Your task to perform on an android device: clear all cookies in the chrome app Image 0: 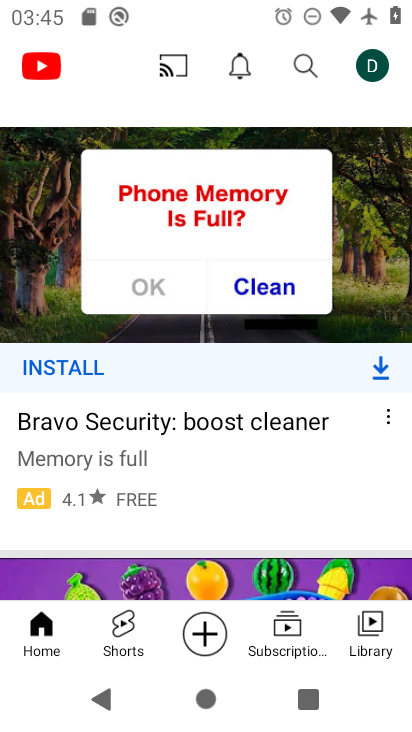
Step 0: press home button
Your task to perform on an android device: clear all cookies in the chrome app Image 1: 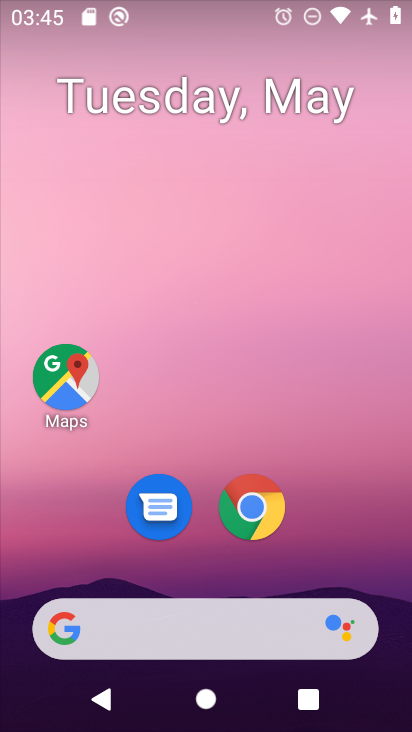
Step 1: click (247, 523)
Your task to perform on an android device: clear all cookies in the chrome app Image 2: 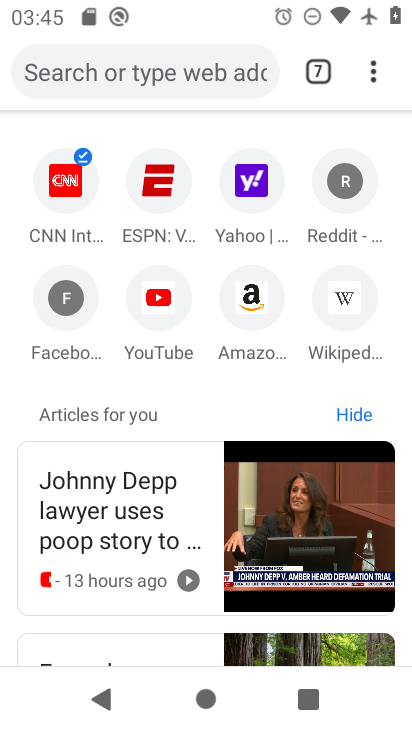
Step 2: click (376, 66)
Your task to perform on an android device: clear all cookies in the chrome app Image 3: 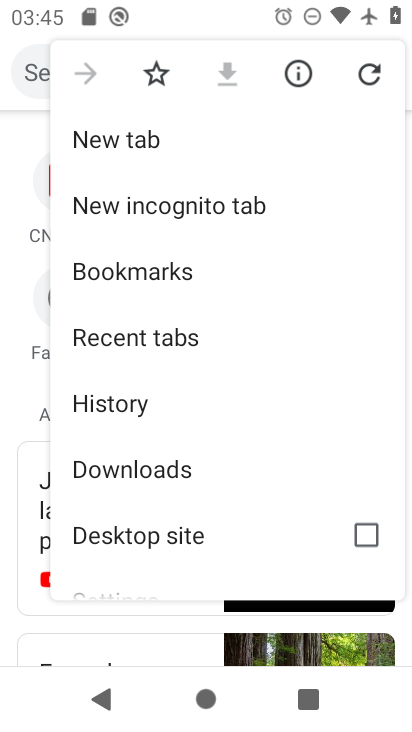
Step 3: drag from (218, 508) to (238, 301)
Your task to perform on an android device: clear all cookies in the chrome app Image 4: 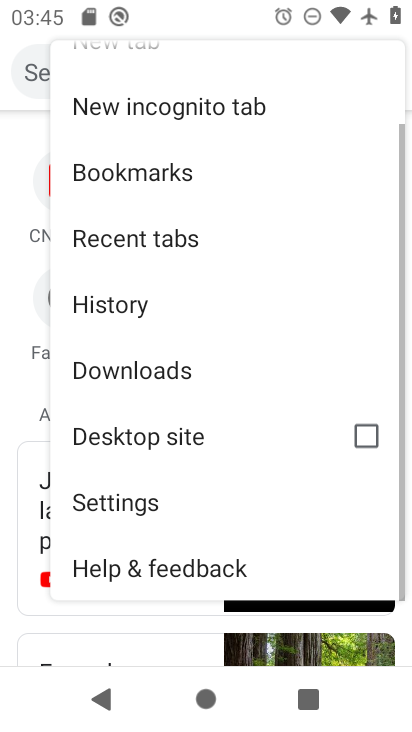
Step 4: drag from (185, 507) to (212, 253)
Your task to perform on an android device: clear all cookies in the chrome app Image 5: 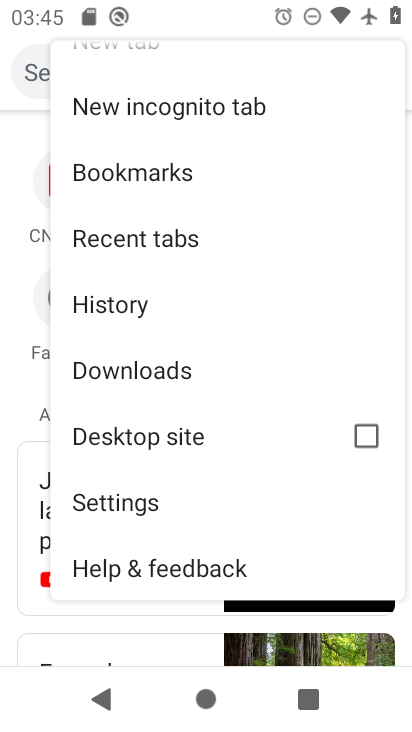
Step 5: click (161, 492)
Your task to perform on an android device: clear all cookies in the chrome app Image 6: 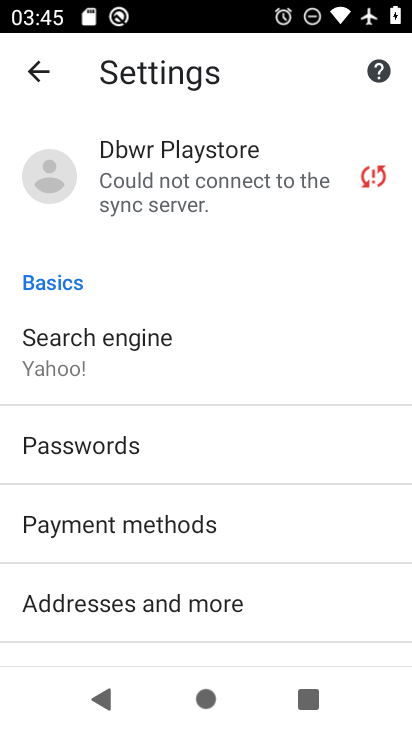
Step 6: click (34, 84)
Your task to perform on an android device: clear all cookies in the chrome app Image 7: 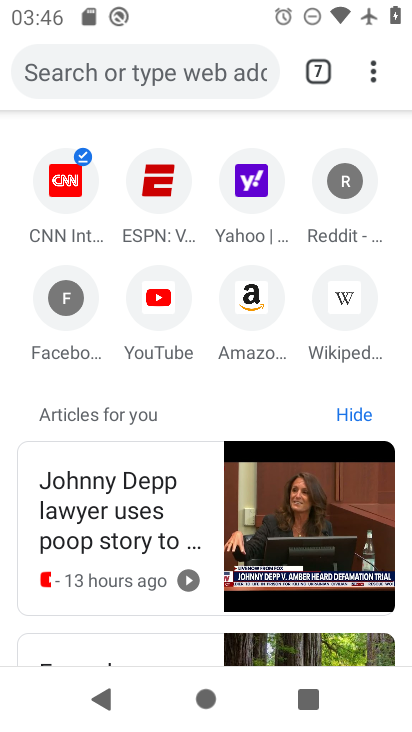
Step 7: drag from (370, 64) to (138, 385)
Your task to perform on an android device: clear all cookies in the chrome app Image 8: 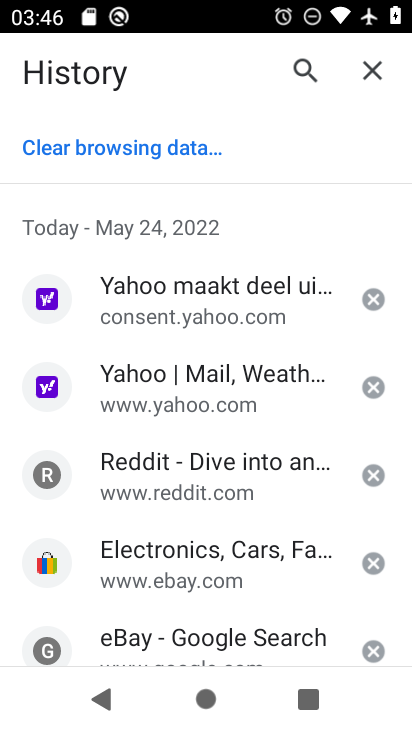
Step 8: click (139, 155)
Your task to perform on an android device: clear all cookies in the chrome app Image 9: 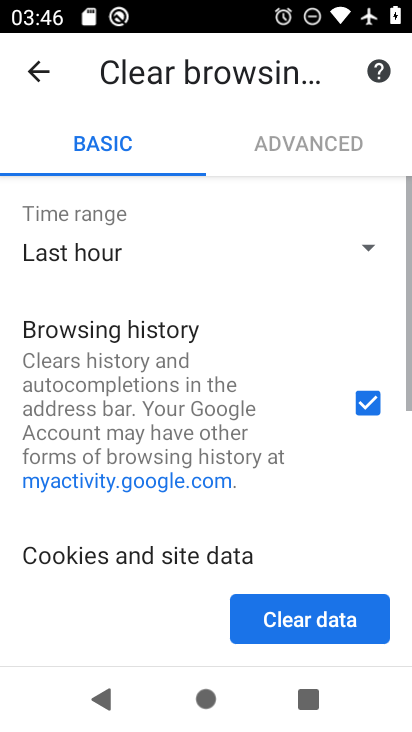
Step 9: drag from (317, 491) to (298, 226)
Your task to perform on an android device: clear all cookies in the chrome app Image 10: 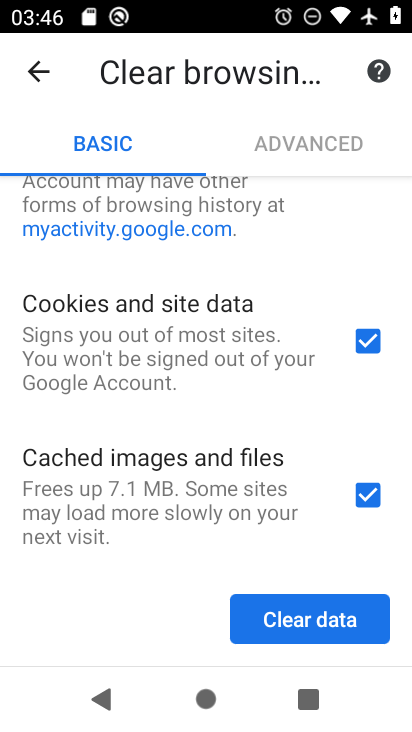
Step 10: click (351, 621)
Your task to perform on an android device: clear all cookies in the chrome app Image 11: 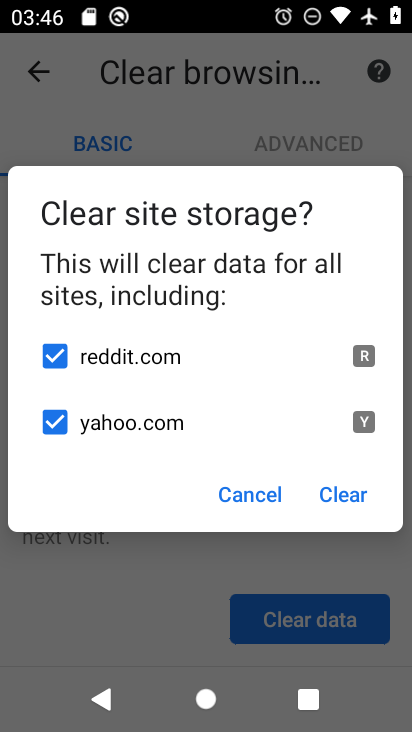
Step 11: click (344, 488)
Your task to perform on an android device: clear all cookies in the chrome app Image 12: 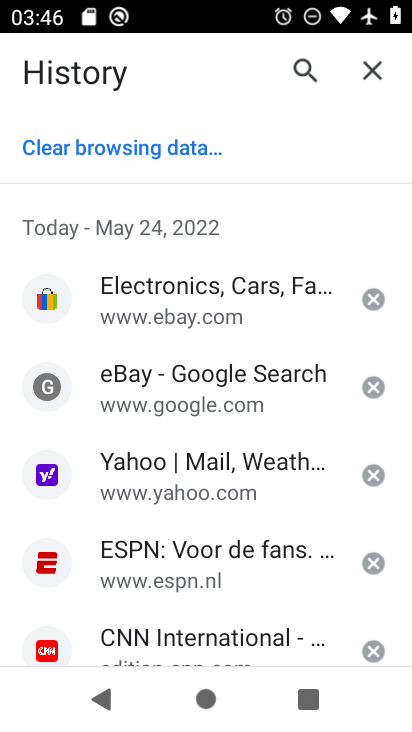
Step 12: task complete